Your task to perform on an android device: turn on translation in the chrome app Image 0: 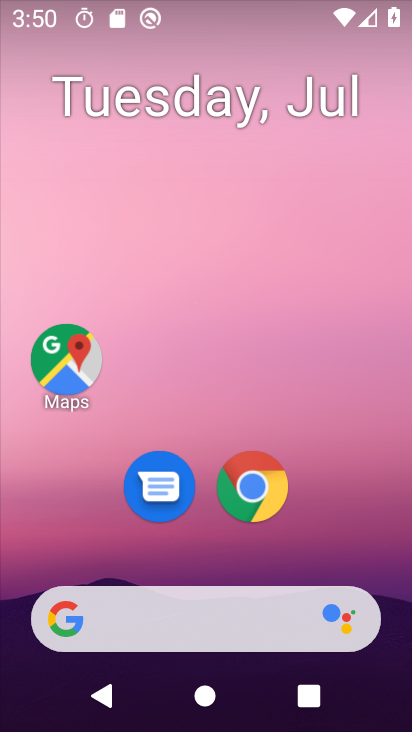
Step 0: press home button
Your task to perform on an android device: turn on translation in the chrome app Image 1: 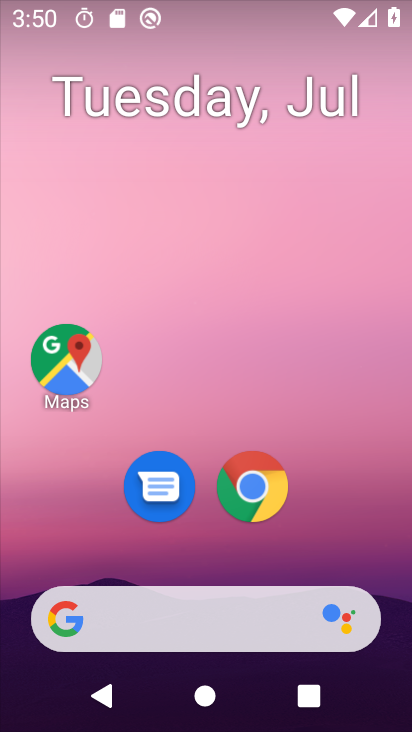
Step 1: drag from (348, 530) to (354, 81)
Your task to perform on an android device: turn on translation in the chrome app Image 2: 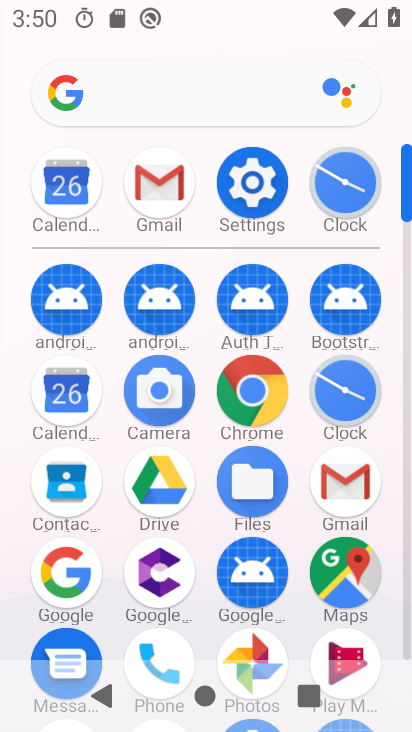
Step 2: click (249, 384)
Your task to perform on an android device: turn on translation in the chrome app Image 3: 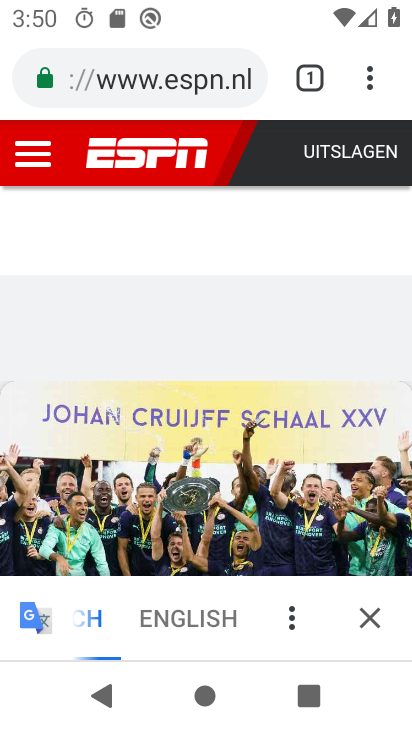
Step 3: click (369, 84)
Your task to perform on an android device: turn on translation in the chrome app Image 4: 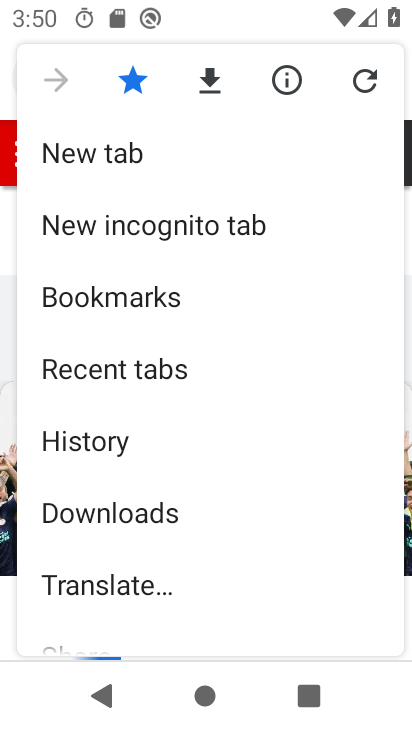
Step 4: drag from (303, 417) to (303, 333)
Your task to perform on an android device: turn on translation in the chrome app Image 5: 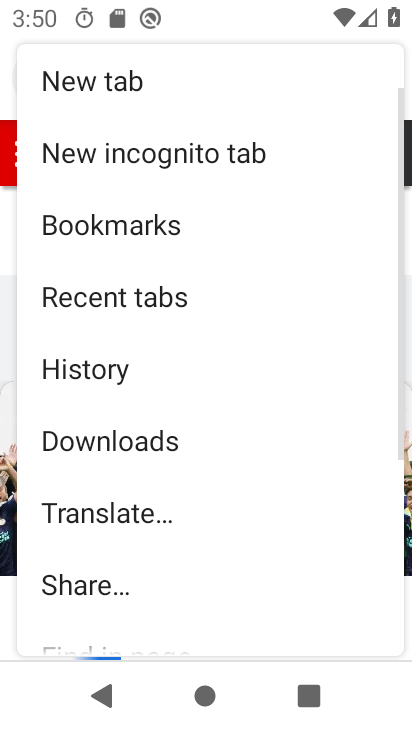
Step 5: drag from (302, 473) to (302, 370)
Your task to perform on an android device: turn on translation in the chrome app Image 6: 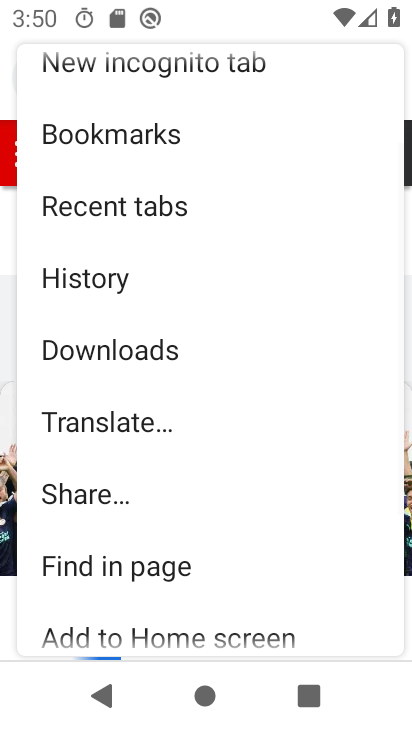
Step 6: drag from (306, 479) to (308, 376)
Your task to perform on an android device: turn on translation in the chrome app Image 7: 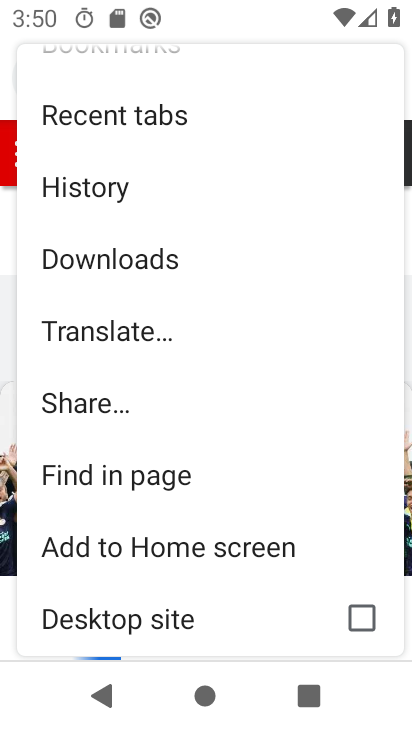
Step 7: drag from (321, 500) to (321, 370)
Your task to perform on an android device: turn on translation in the chrome app Image 8: 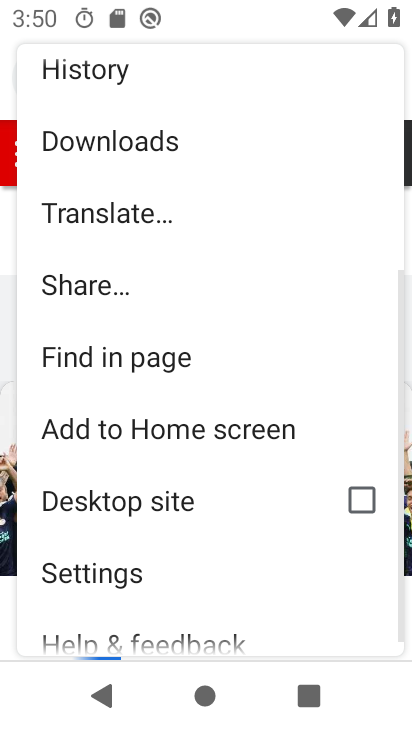
Step 8: drag from (264, 584) to (267, 363)
Your task to perform on an android device: turn on translation in the chrome app Image 9: 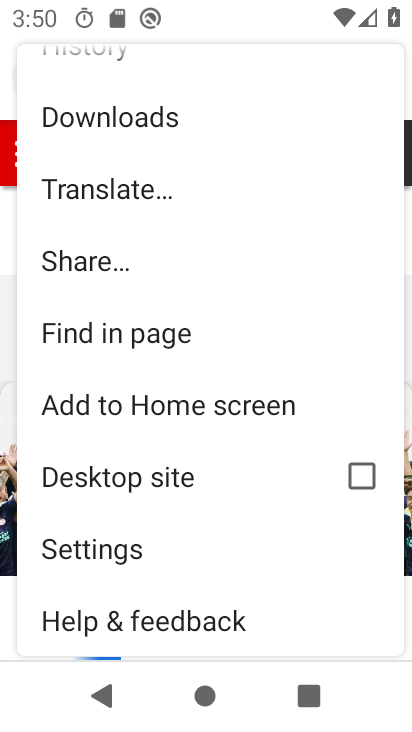
Step 9: click (206, 542)
Your task to perform on an android device: turn on translation in the chrome app Image 10: 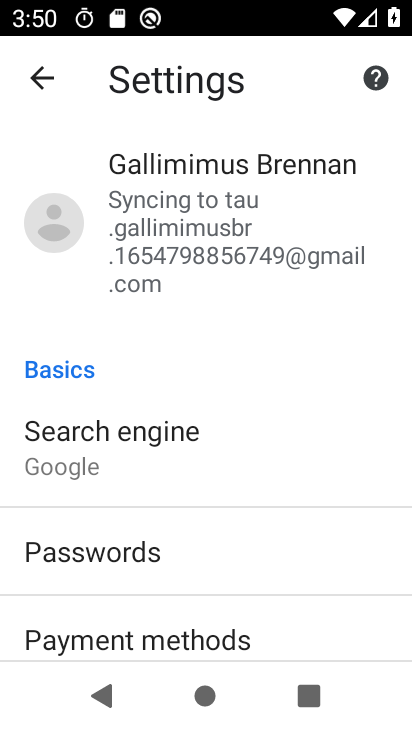
Step 10: drag from (301, 569) to (301, 465)
Your task to perform on an android device: turn on translation in the chrome app Image 11: 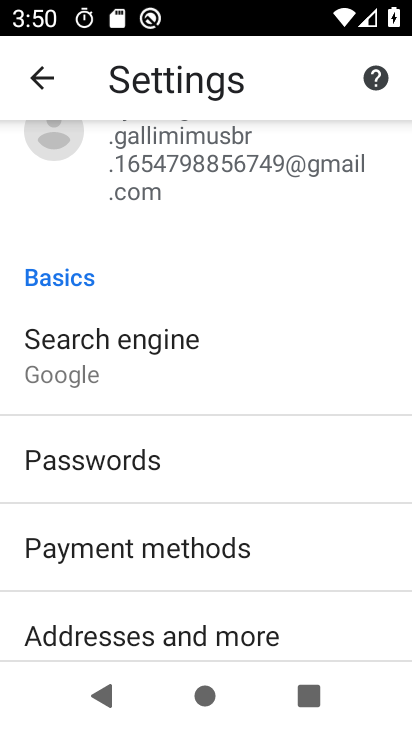
Step 11: drag from (309, 590) to (321, 421)
Your task to perform on an android device: turn on translation in the chrome app Image 12: 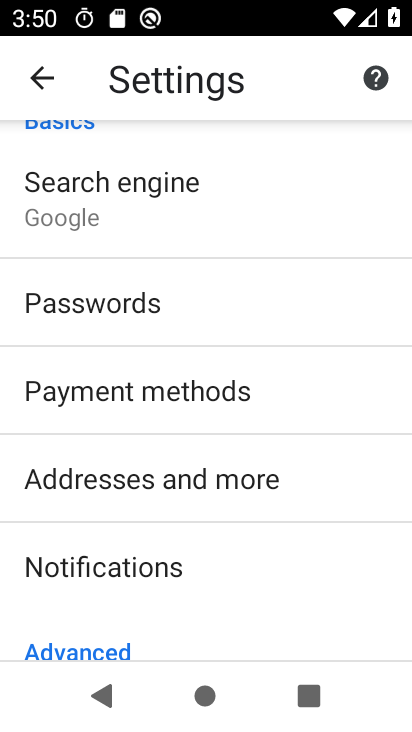
Step 12: drag from (331, 565) to (321, 456)
Your task to perform on an android device: turn on translation in the chrome app Image 13: 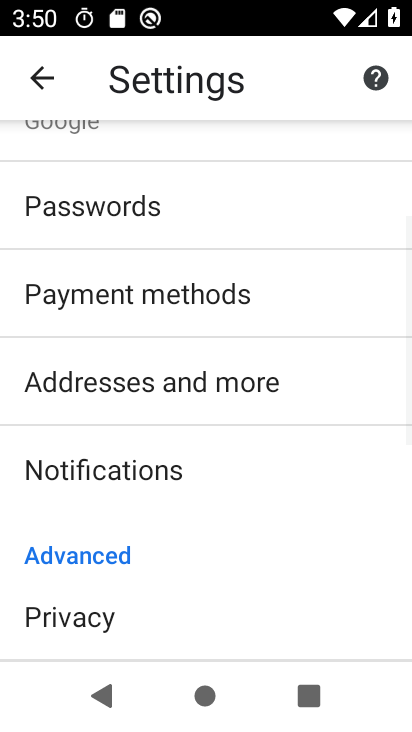
Step 13: drag from (305, 553) to (310, 446)
Your task to perform on an android device: turn on translation in the chrome app Image 14: 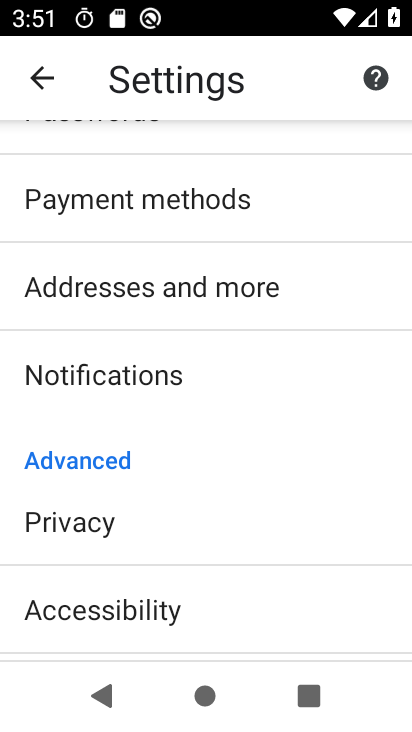
Step 14: drag from (292, 592) to (291, 492)
Your task to perform on an android device: turn on translation in the chrome app Image 15: 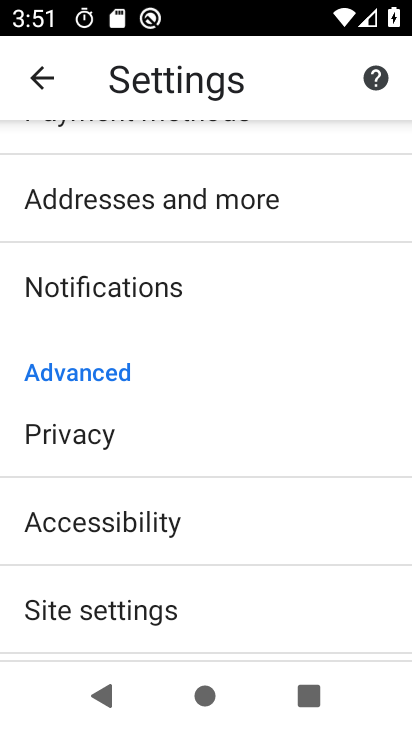
Step 15: drag from (281, 583) to (294, 483)
Your task to perform on an android device: turn on translation in the chrome app Image 16: 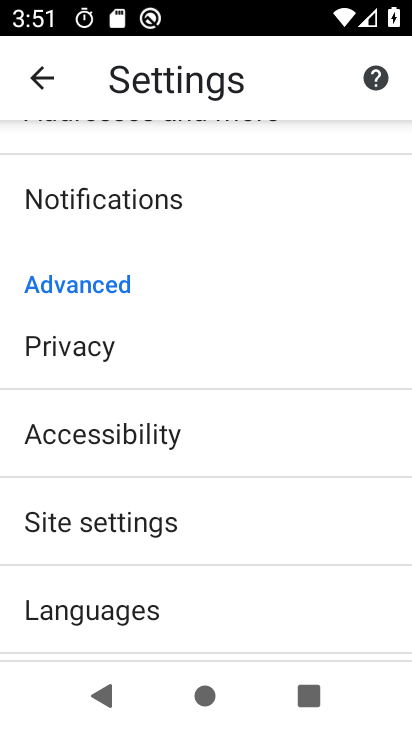
Step 16: drag from (290, 585) to (301, 472)
Your task to perform on an android device: turn on translation in the chrome app Image 17: 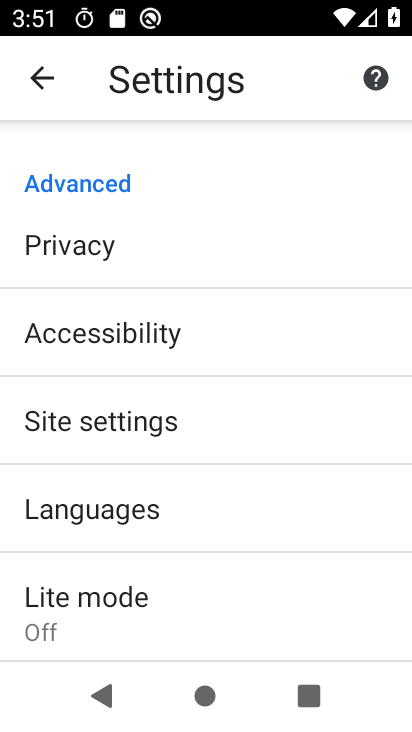
Step 17: drag from (288, 581) to (291, 498)
Your task to perform on an android device: turn on translation in the chrome app Image 18: 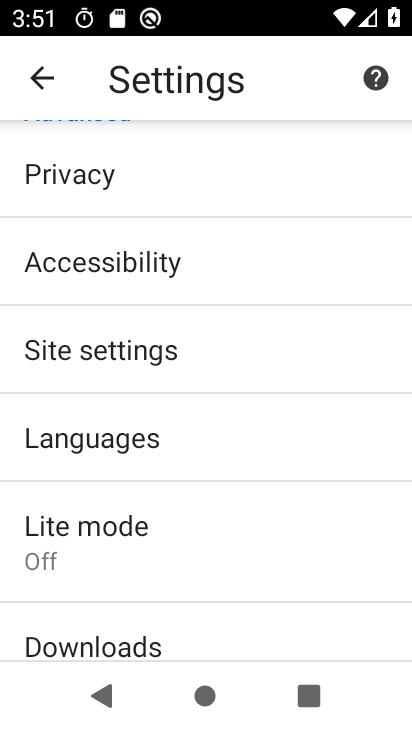
Step 18: click (292, 425)
Your task to perform on an android device: turn on translation in the chrome app Image 19: 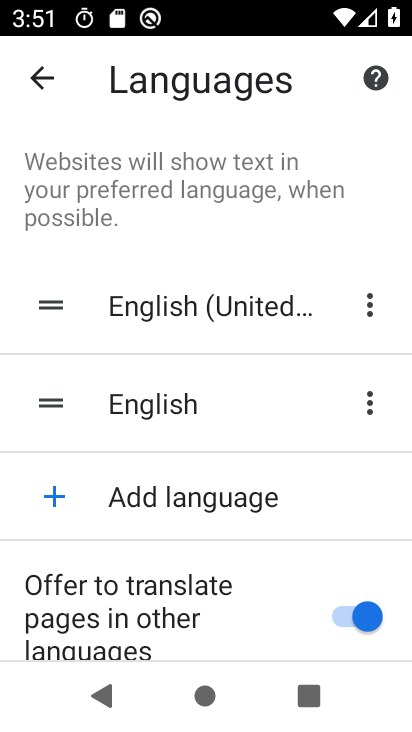
Step 19: task complete